Your task to perform on an android device: Open accessibility settings Image 0: 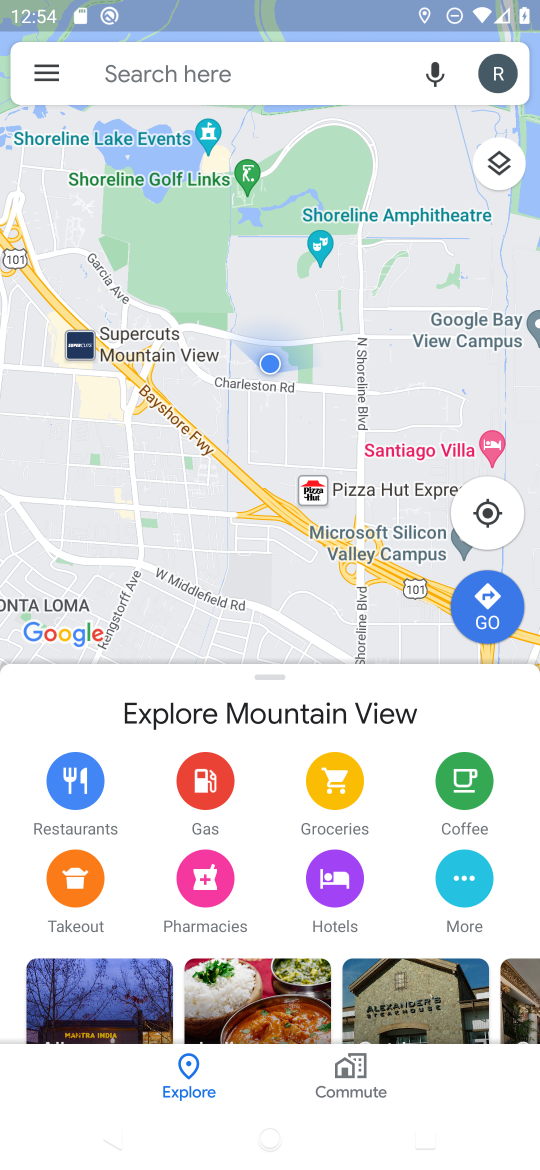
Step 0: press home button
Your task to perform on an android device: Open accessibility settings Image 1: 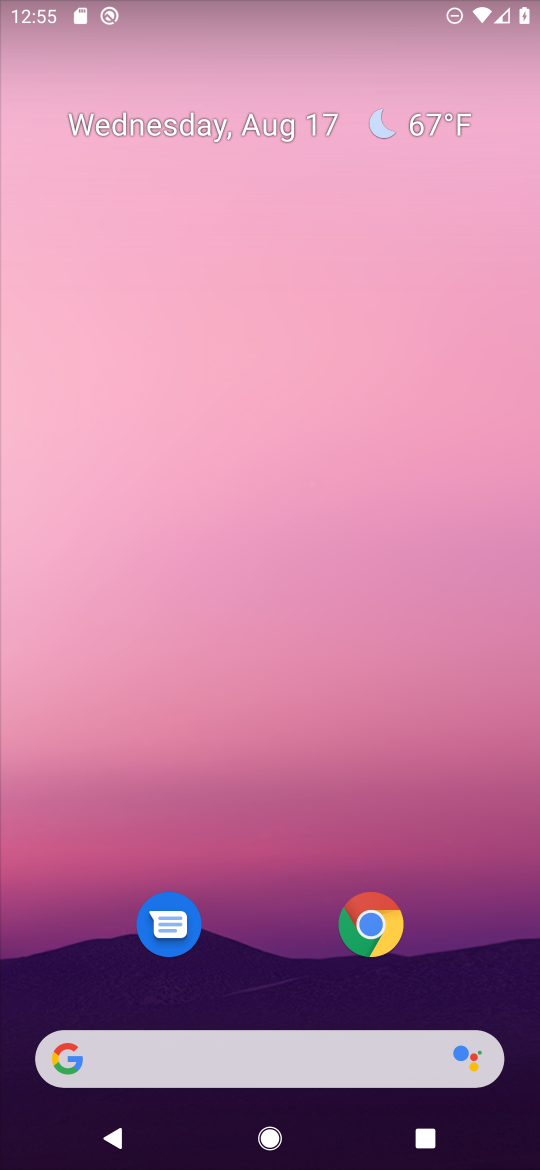
Step 1: drag from (308, 1015) to (298, 168)
Your task to perform on an android device: Open accessibility settings Image 2: 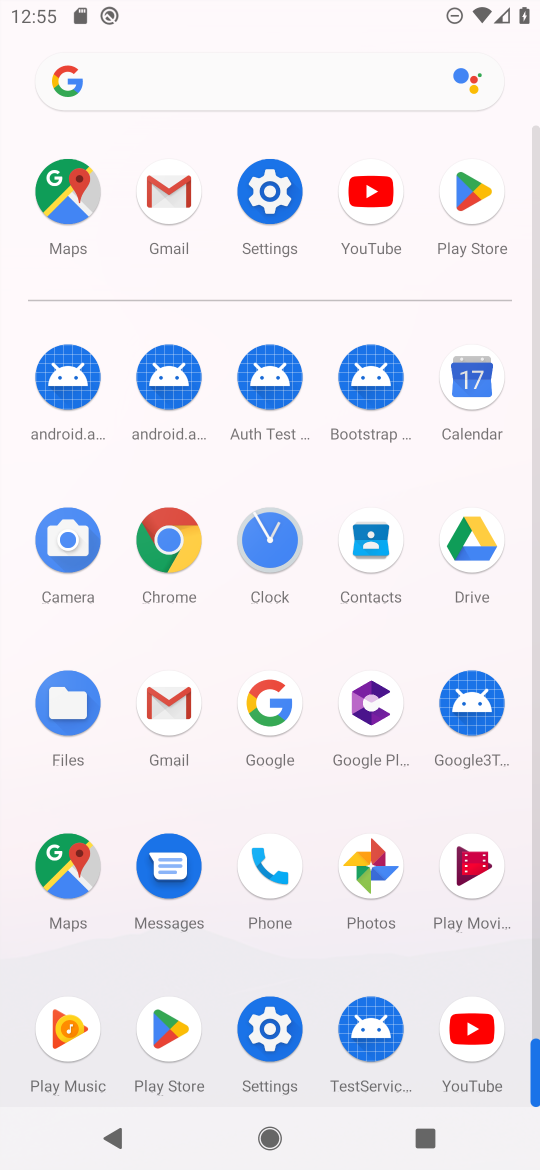
Step 2: click (283, 203)
Your task to perform on an android device: Open accessibility settings Image 3: 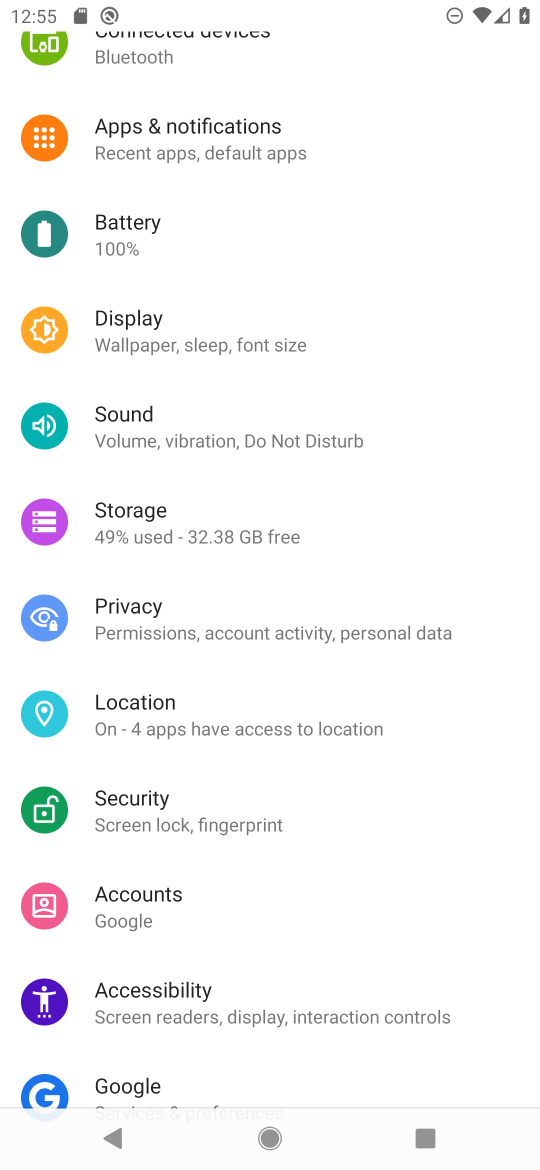
Step 3: click (125, 1024)
Your task to perform on an android device: Open accessibility settings Image 4: 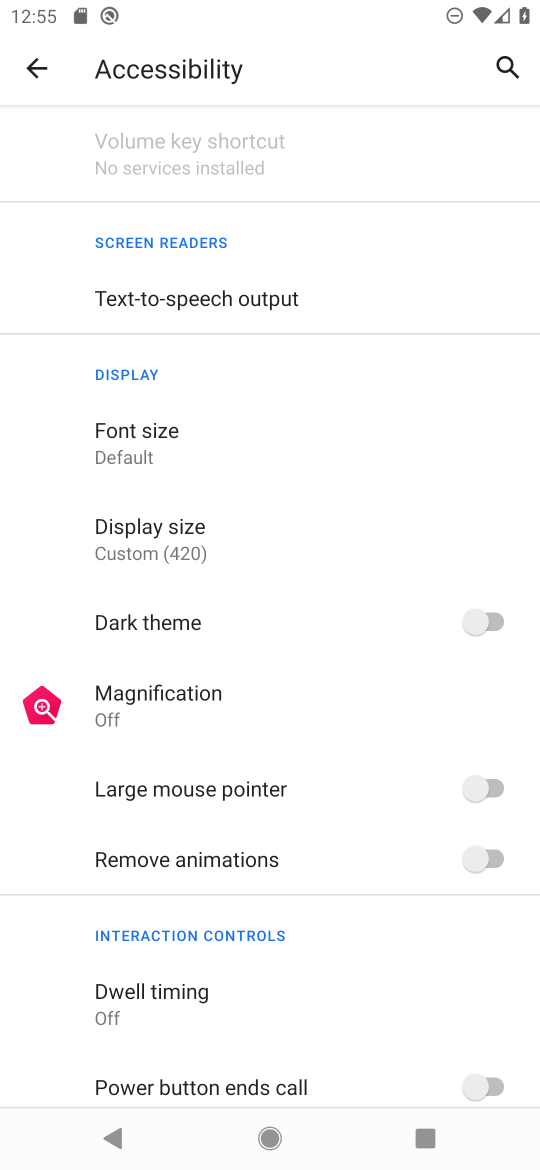
Step 4: task complete